Your task to perform on an android device: Open the stopwatch Image 0: 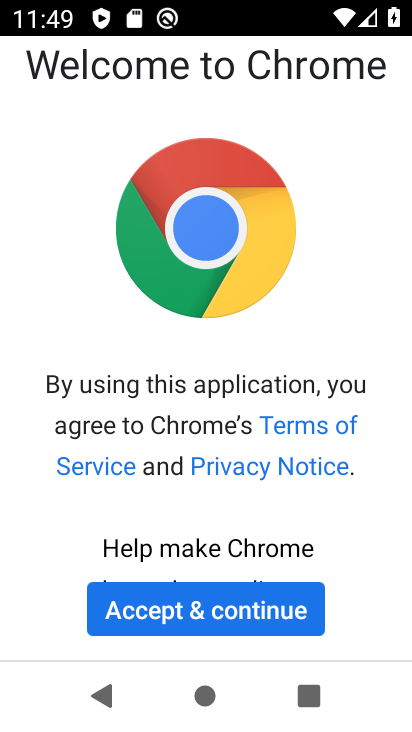
Step 0: press home button
Your task to perform on an android device: Open the stopwatch Image 1: 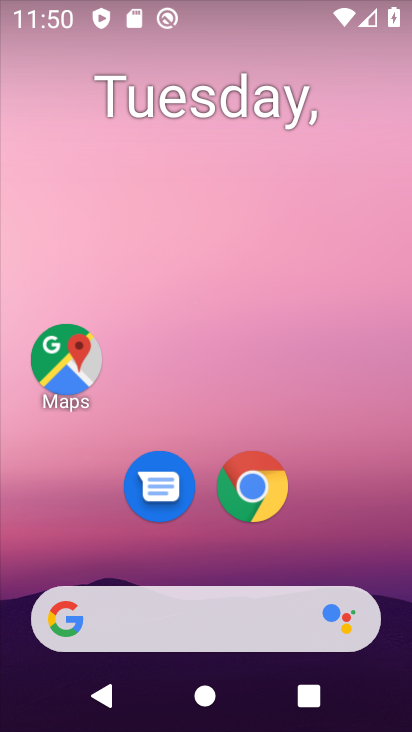
Step 1: drag from (31, 561) to (186, 167)
Your task to perform on an android device: Open the stopwatch Image 2: 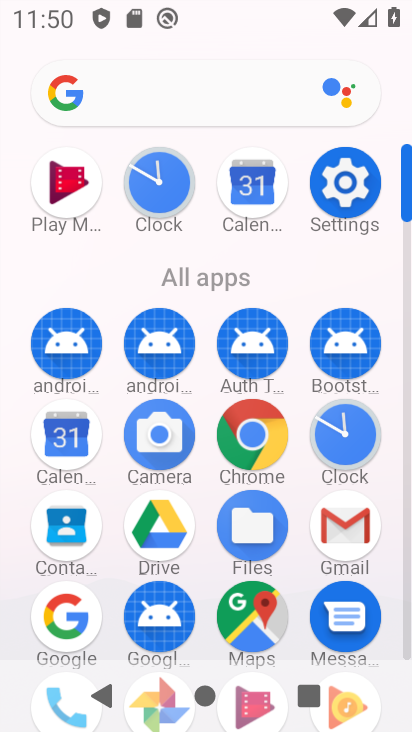
Step 2: click (376, 472)
Your task to perform on an android device: Open the stopwatch Image 3: 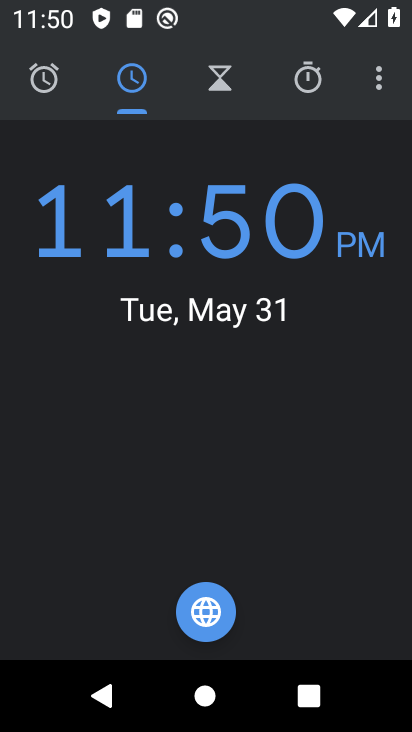
Step 3: click (313, 94)
Your task to perform on an android device: Open the stopwatch Image 4: 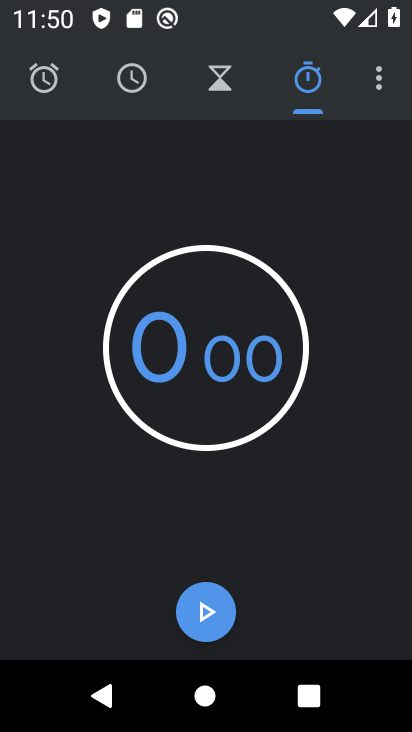
Step 4: task complete